Your task to perform on an android device: Open sound settings Image 0: 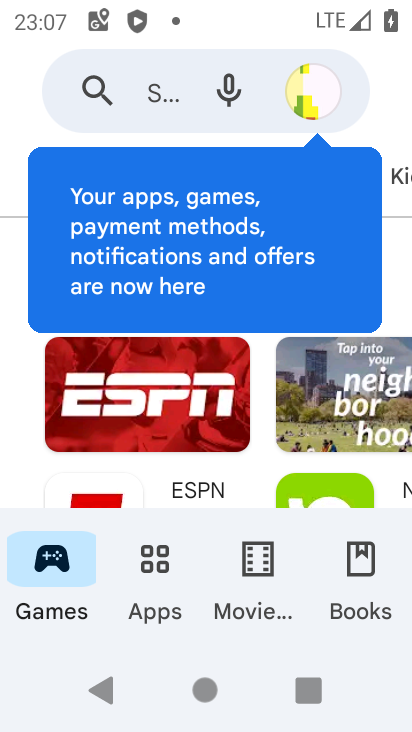
Step 0: press home button
Your task to perform on an android device: Open sound settings Image 1: 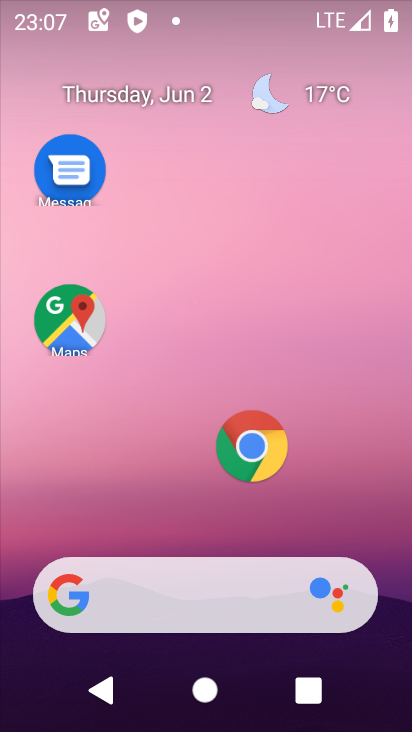
Step 1: drag from (278, 550) to (283, 11)
Your task to perform on an android device: Open sound settings Image 2: 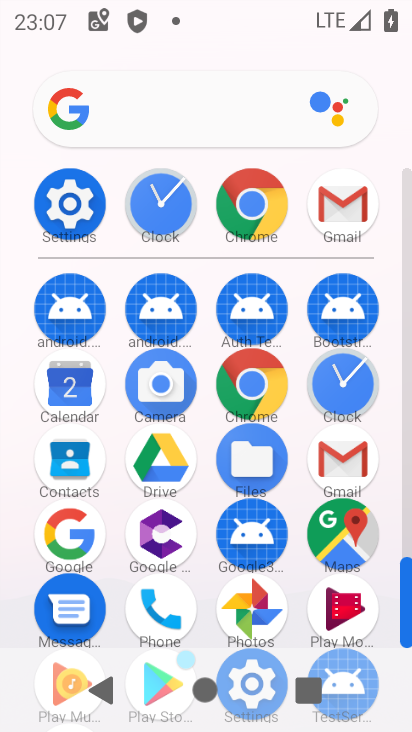
Step 2: click (338, 366)
Your task to perform on an android device: Open sound settings Image 3: 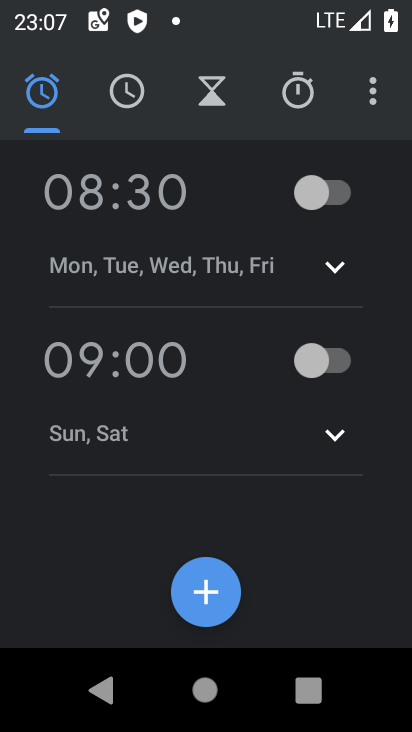
Step 3: click (373, 91)
Your task to perform on an android device: Open sound settings Image 4: 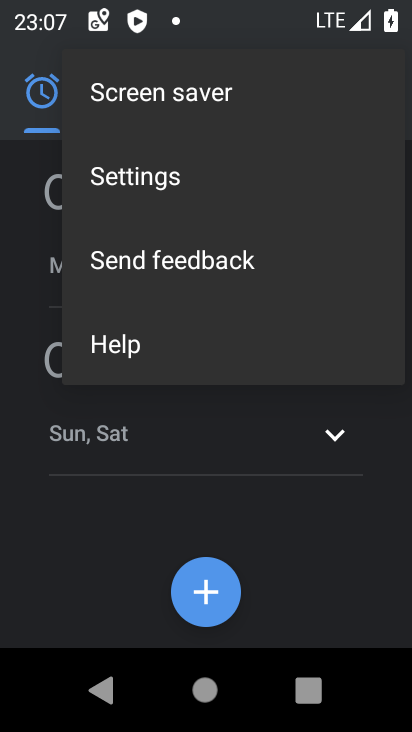
Step 4: click (175, 193)
Your task to perform on an android device: Open sound settings Image 5: 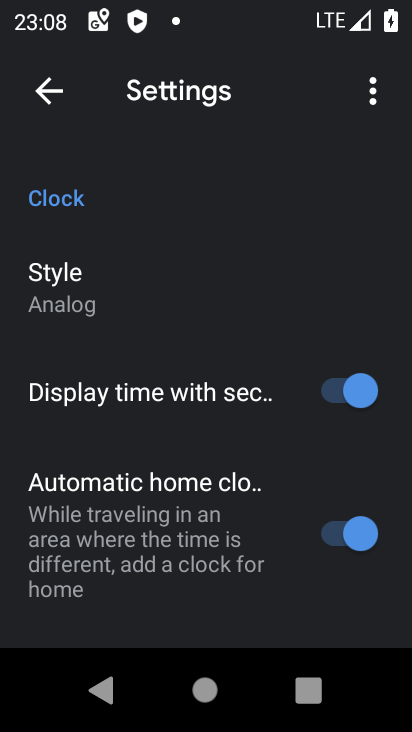
Step 5: drag from (234, 560) to (213, 138)
Your task to perform on an android device: Open sound settings Image 6: 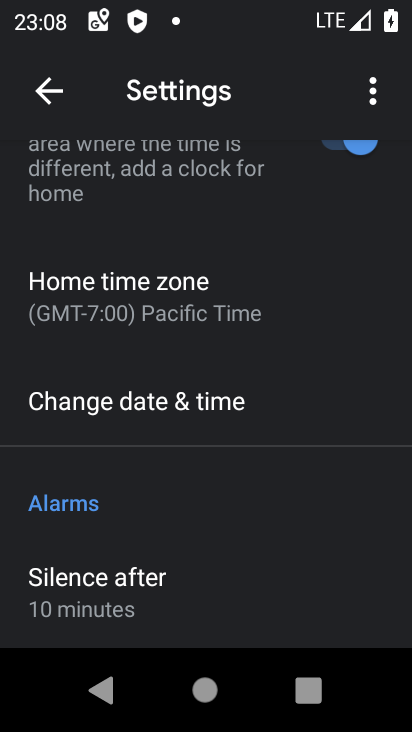
Step 6: press home button
Your task to perform on an android device: Open sound settings Image 7: 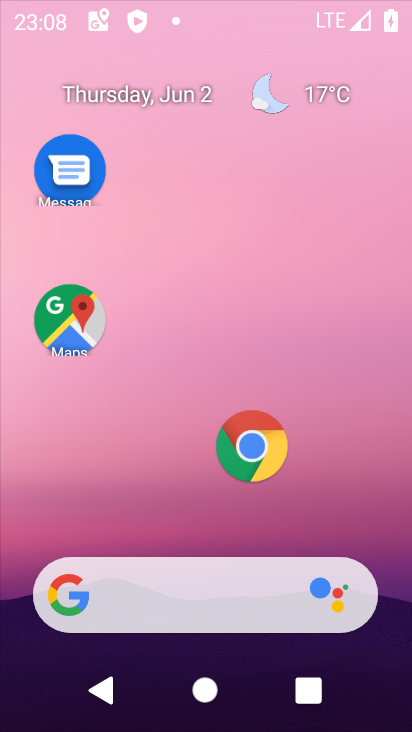
Step 7: drag from (273, 546) to (260, 167)
Your task to perform on an android device: Open sound settings Image 8: 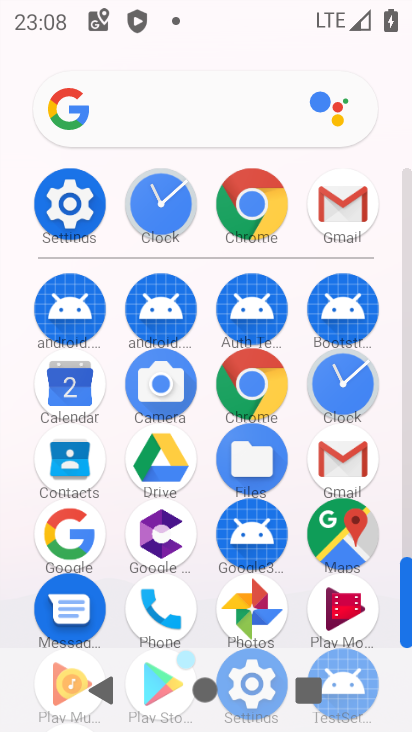
Step 8: click (70, 172)
Your task to perform on an android device: Open sound settings Image 9: 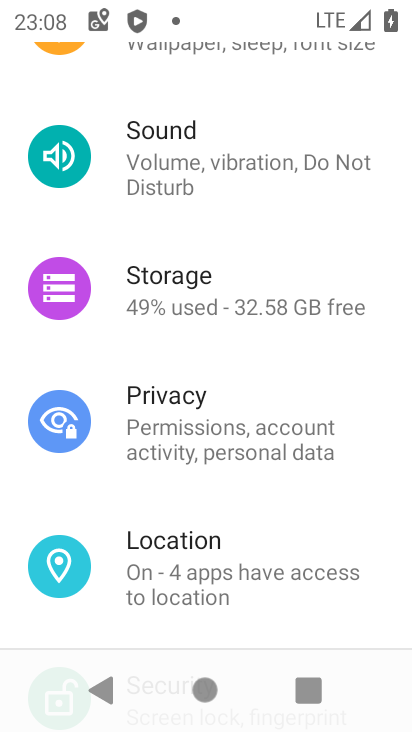
Step 9: click (190, 130)
Your task to perform on an android device: Open sound settings Image 10: 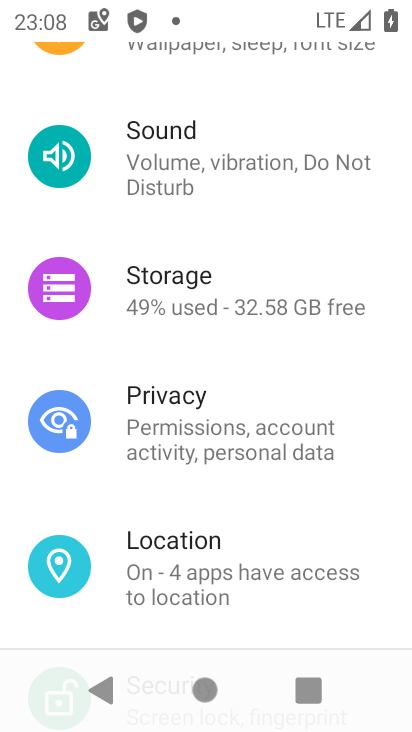
Step 10: task complete